Your task to perform on an android device: turn on the 24-hour format for clock Image 0: 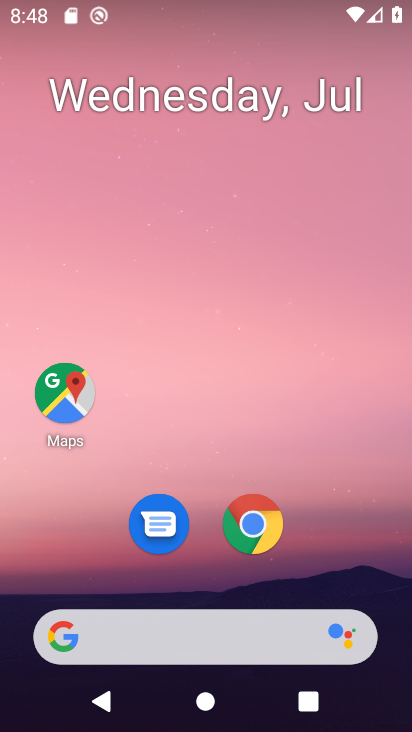
Step 0: press home button
Your task to perform on an android device: turn on the 24-hour format for clock Image 1: 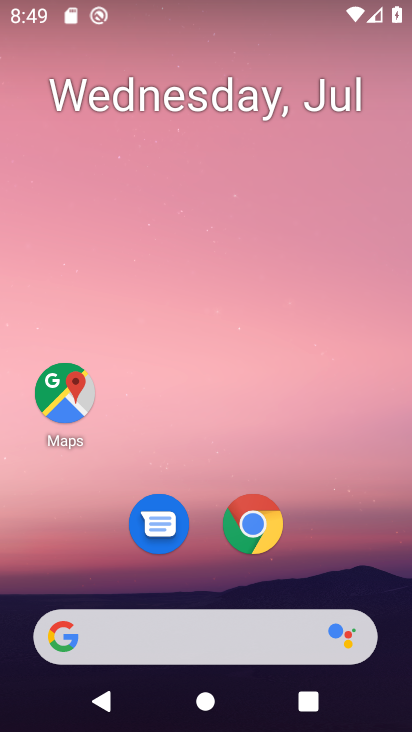
Step 1: drag from (163, 610) to (291, 204)
Your task to perform on an android device: turn on the 24-hour format for clock Image 2: 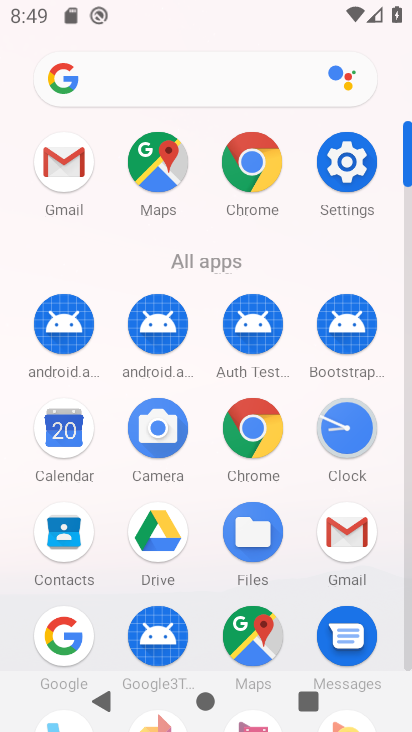
Step 2: click (339, 443)
Your task to perform on an android device: turn on the 24-hour format for clock Image 3: 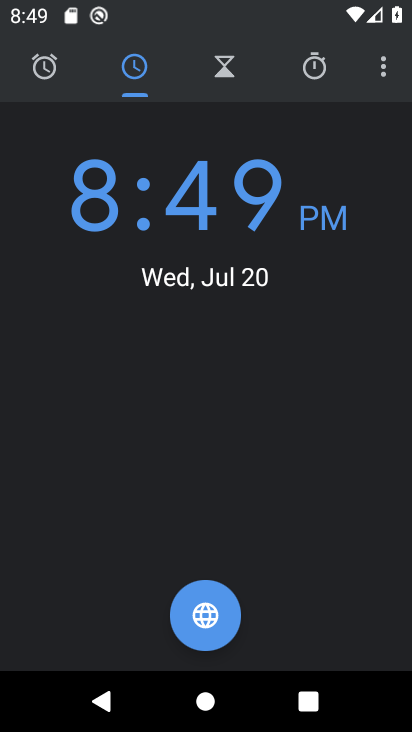
Step 3: click (386, 65)
Your task to perform on an android device: turn on the 24-hour format for clock Image 4: 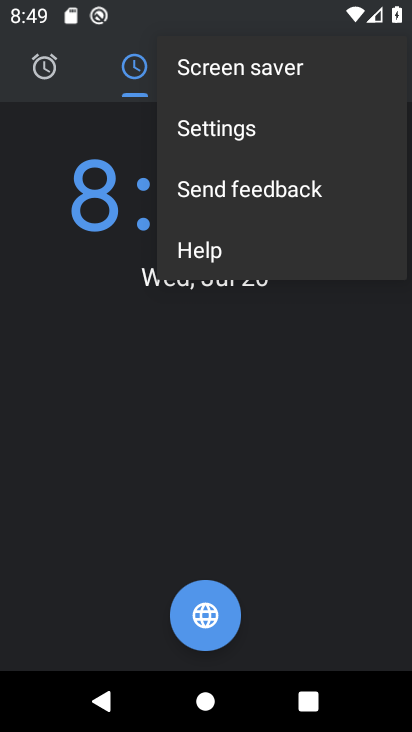
Step 4: click (252, 131)
Your task to perform on an android device: turn on the 24-hour format for clock Image 5: 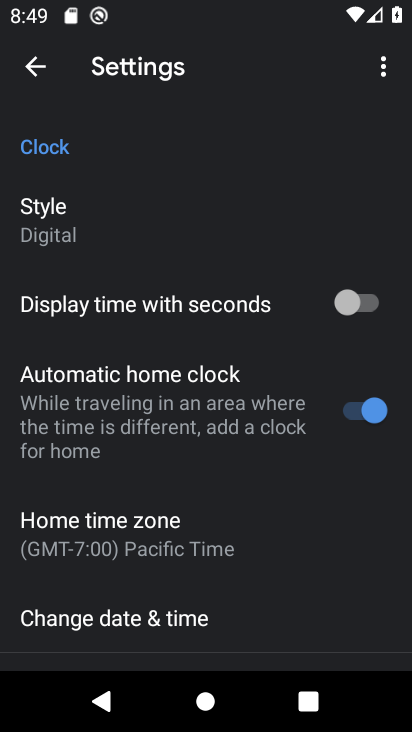
Step 5: click (169, 612)
Your task to perform on an android device: turn on the 24-hour format for clock Image 6: 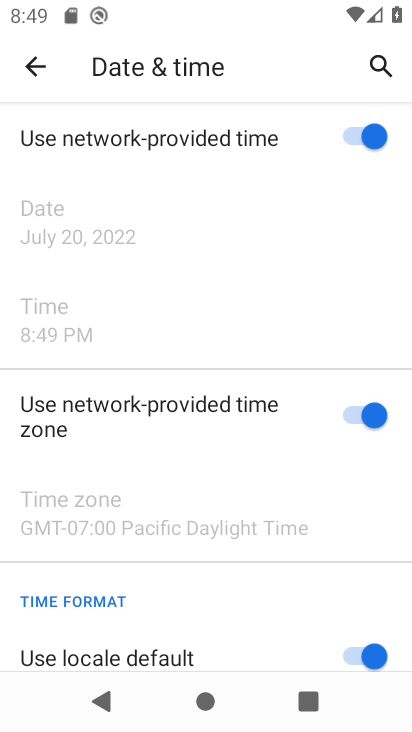
Step 6: drag from (218, 588) to (298, 106)
Your task to perform on an android device: turn on the 24-hour format for clock Image 7: 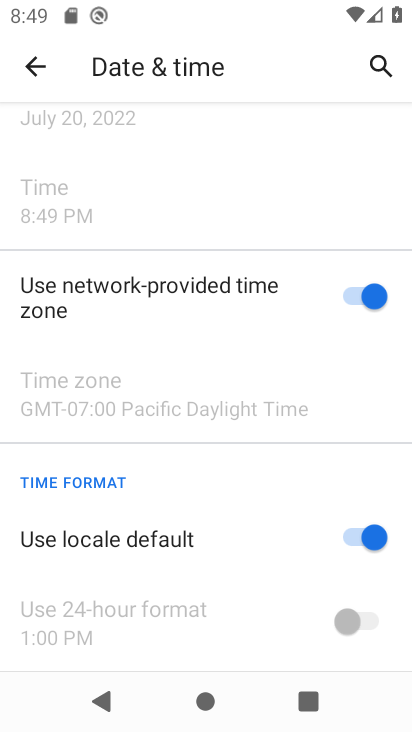
Step 7: click (354, 532)
Your task to perform on an android device: turn on the 24-hour format for clock Image 8: 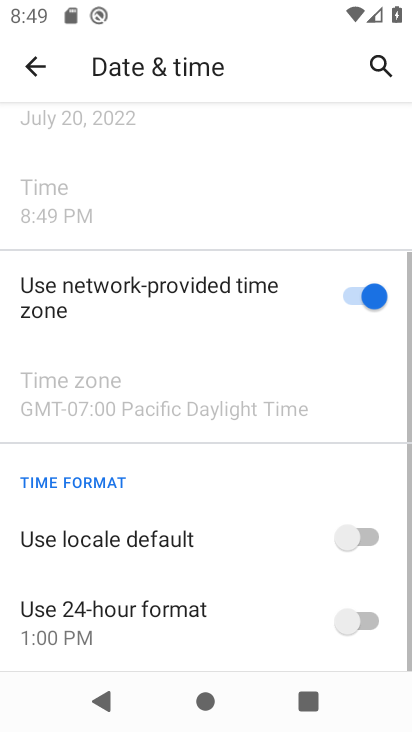
Step 8: click (366, 617)
Your task to perform on an android device: turn on the 24-hour format for clock Image 9: 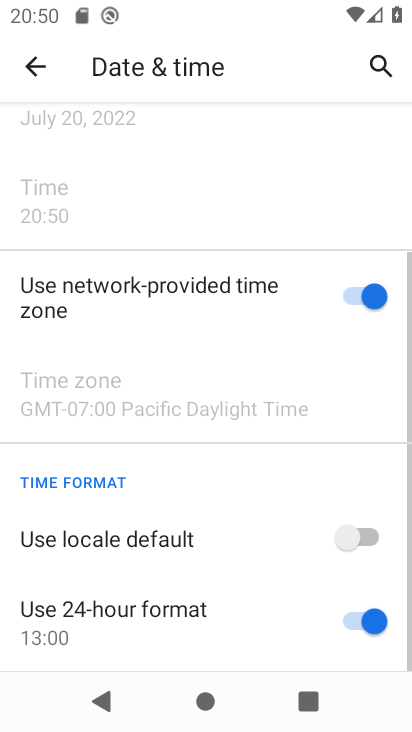
Step 9: task complete